Your task to perform on an android device: Open Google Maps Image 0: 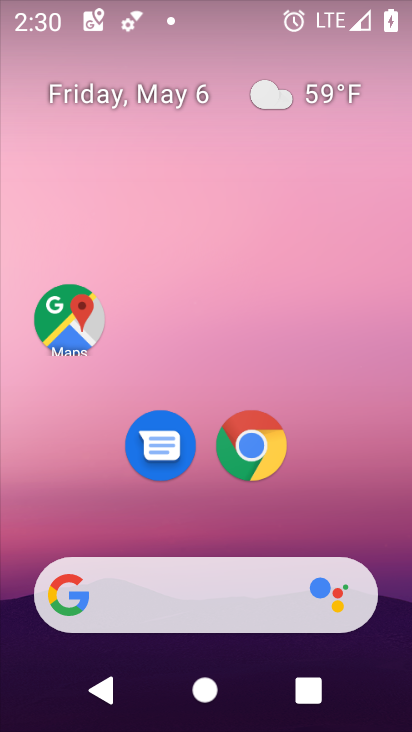
Step 0: drag from (334, 530) to (305, 119)
Your task to perform on an android device: Open Google Maps Image 1: 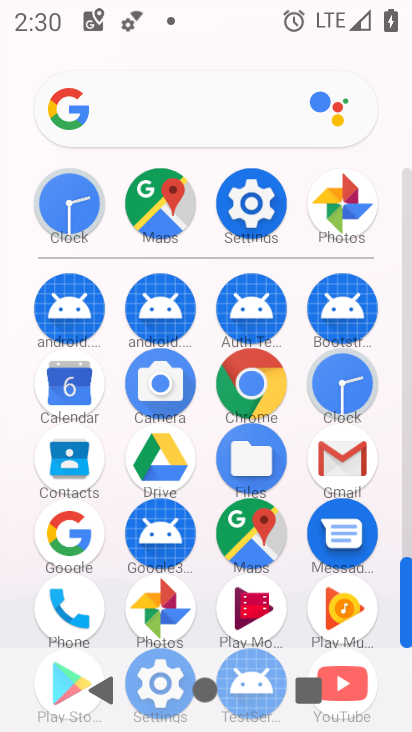
Step 1: click (245, 530)
Your task to perform on an android device: Open Google Maps Image 2: 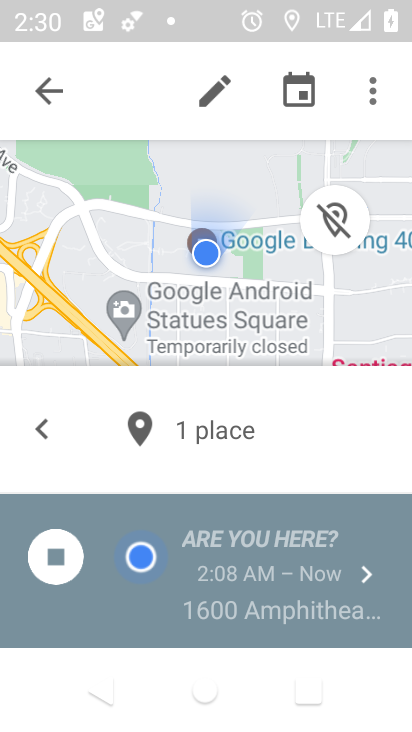
Step 2: task complete